Your task to perform on an android device: Search for sushi restaurants on Maps Image 0: 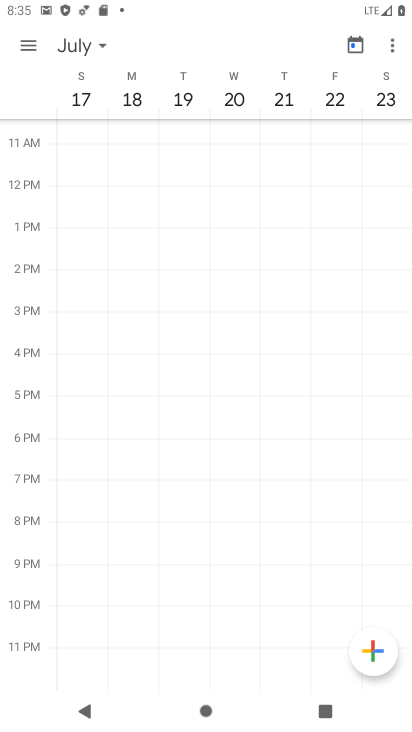
Step 0: press home button
Your task to perform on an android device: Search for sushi restaurants on Maps Image 1: 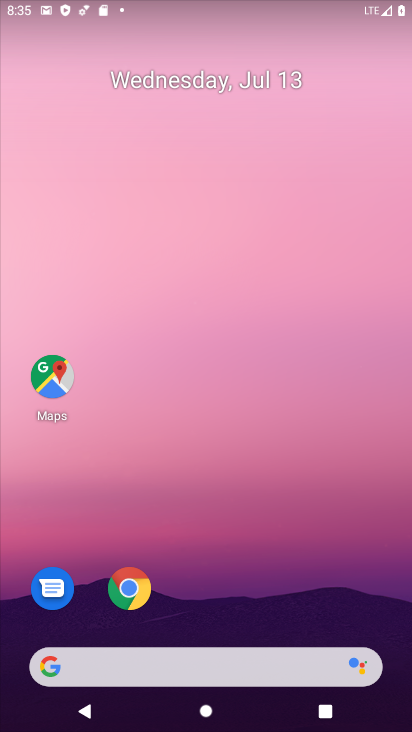
Step 1: click (62, 359)
Your task to perform on an android device: Search for sushi restaurants on Maps Image 2: 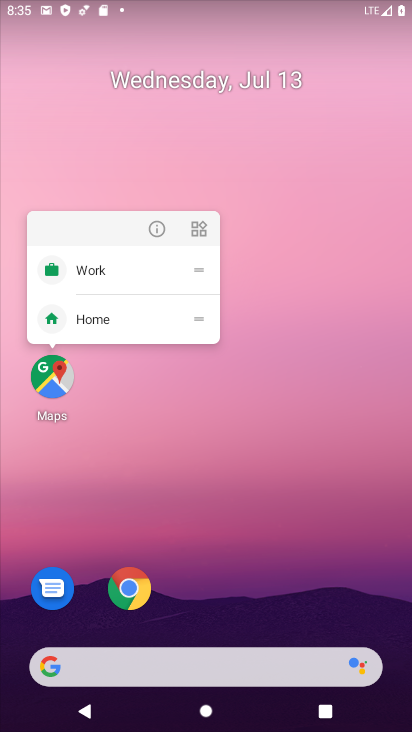
Step 2: click (48, 373)
Your task to perform on an android device: Search for sushi restaurants on Maps Image 3: 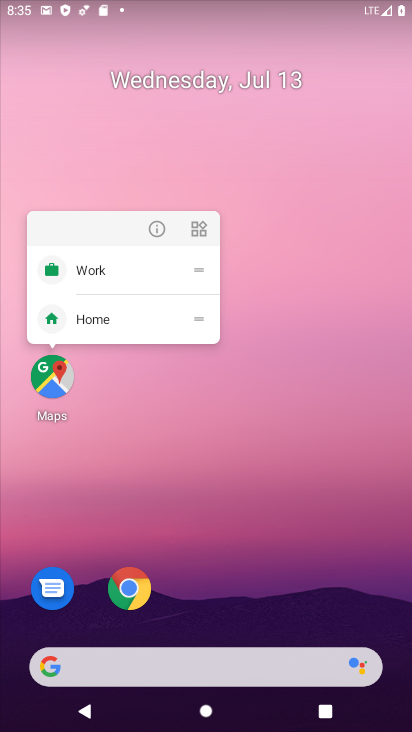
Step 3: click (48, 373)
Your task to perform on an android device: Search for sushi restaurants on Maps Image 4: 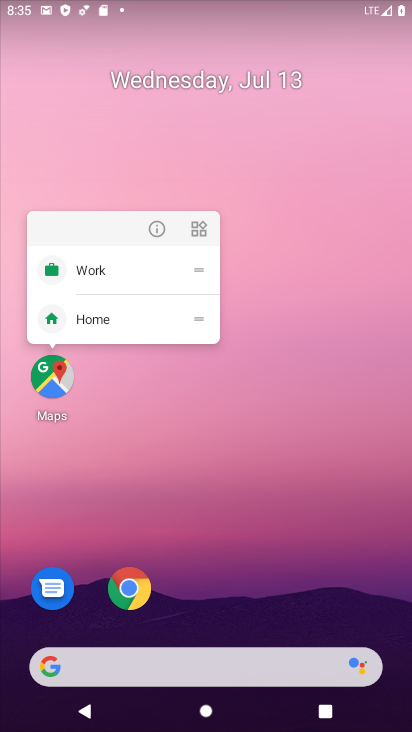
Step 4: click (52, 376)
Your task to perform on an android device: Search for sushi restaurants on Maps Image 5: 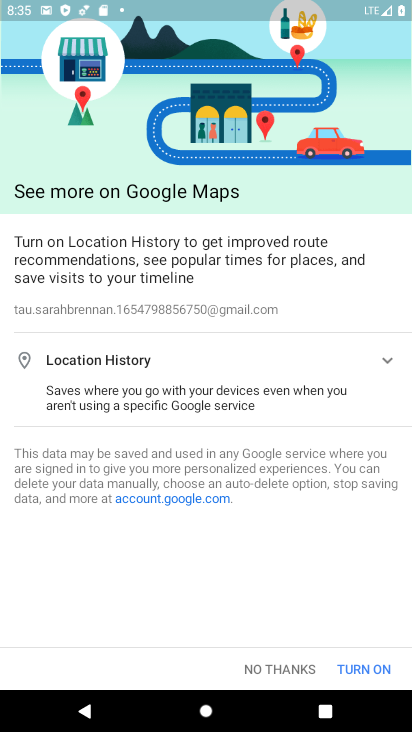
Step 5: click (358, 668)
Your task to perform on an android device: Search for sushi restaurants on Maps Image 6: 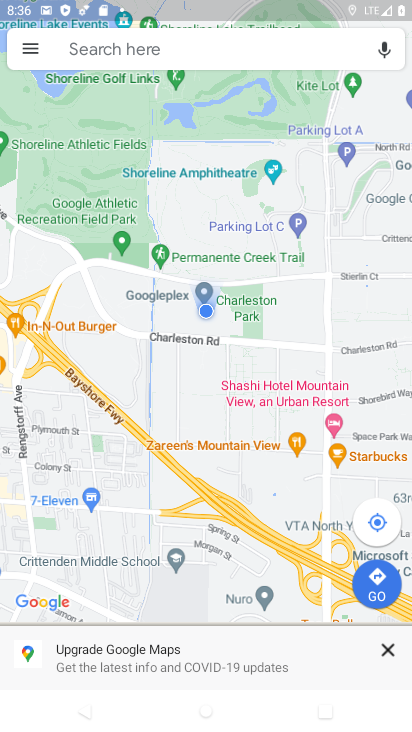
Step 6: click (237, 35)
Your task to perform on an android device: Search for sushi restaurants on Maps Image 7: 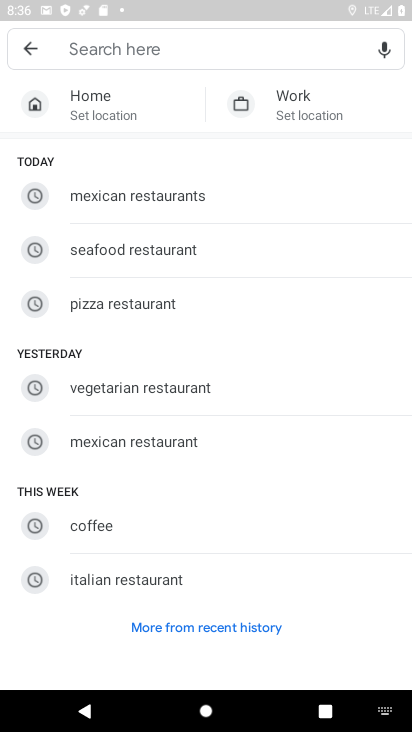
Step 7: type " sushi restaurants "
Your task to perform on an android device: Search for sushi restaurants on Maps Image 8: 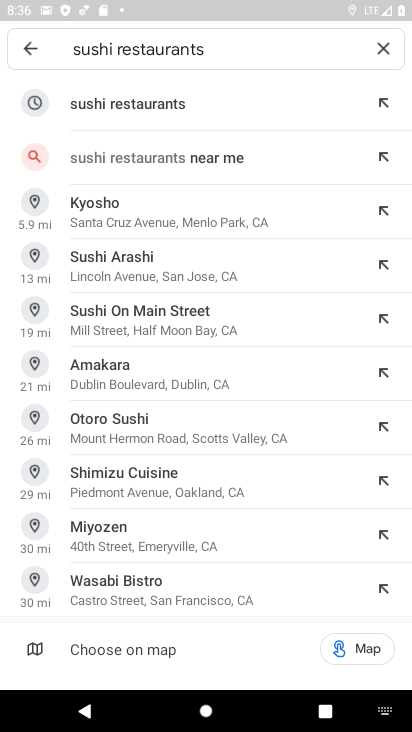
Step 8: click (200, 100)
Your task to perform on an android device: Search for sushi restaurants on Maps Image 9: 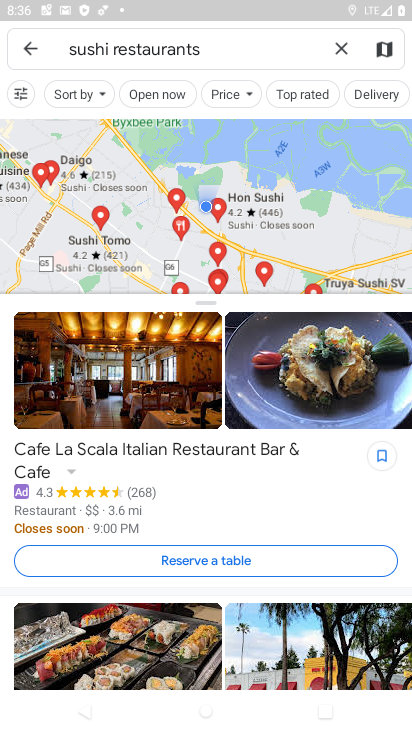
Step 9: task complete